Your task to perform on an android device: What's on my calendar tomorrow? Image 0: 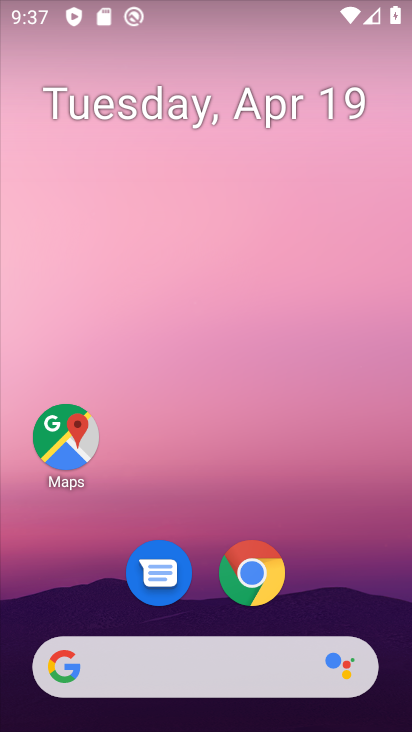
Step 0: drag from (226, 632) to (296, 236)
Your task to perform on an android device: What's on my calendar tomorrow? Image 1: 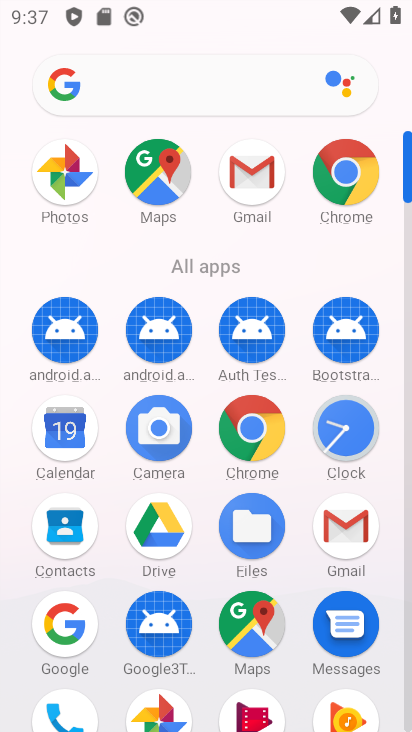
Step 1: click (74, 434)
Your task to perform on an android device: What's on my calendar tomorrow? Image 2: 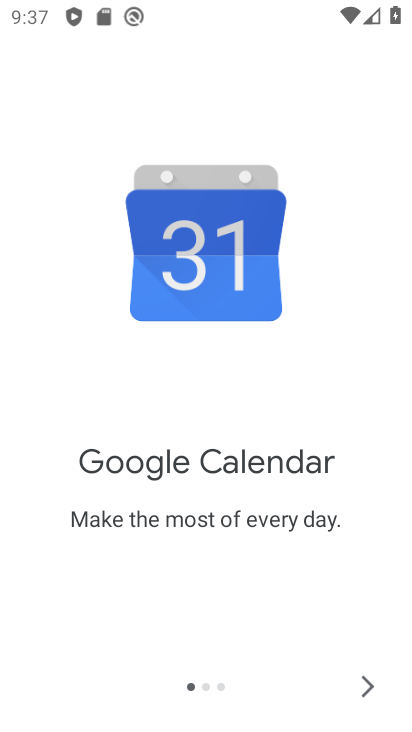
Step 2: click (367, 679)
Your task to perform on an android device: What's on my calendar tomorrow? Image 3: 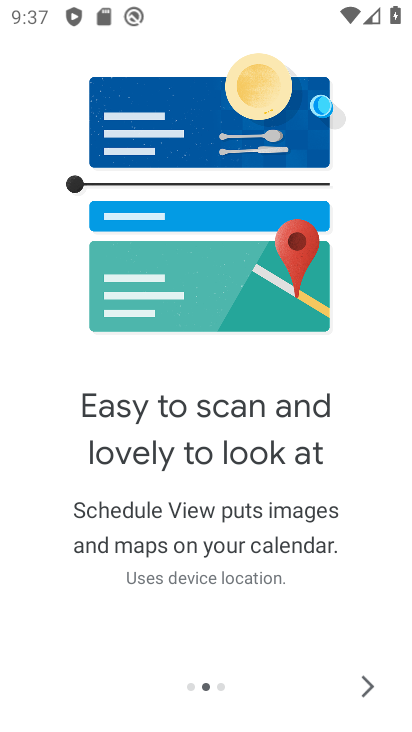
Step 3: click (367, 679)
Your task to perform on an android device: What's on my calendar tomorrow? Image 4: 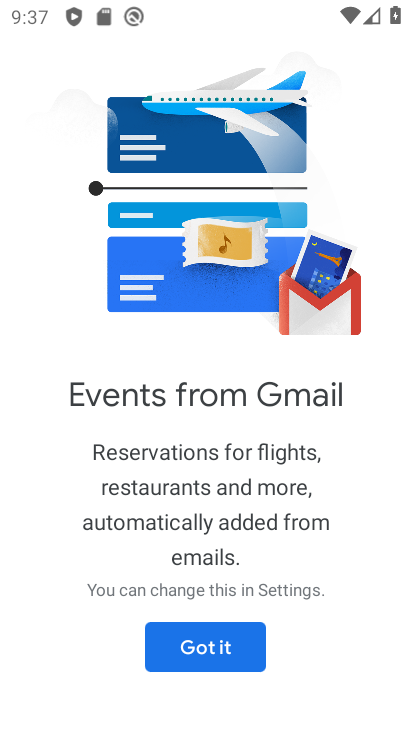
Step 4: click (235, 655)
Your task to perform on an android device: What's on my calendar tomorrow? Image 5: 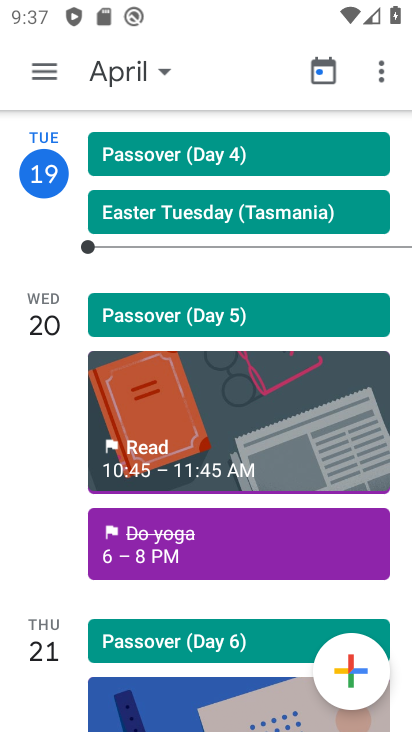
Step 5: click (130, 68)
Your task to perform on an android device: What's on my calendar tomorrow? Image 6: 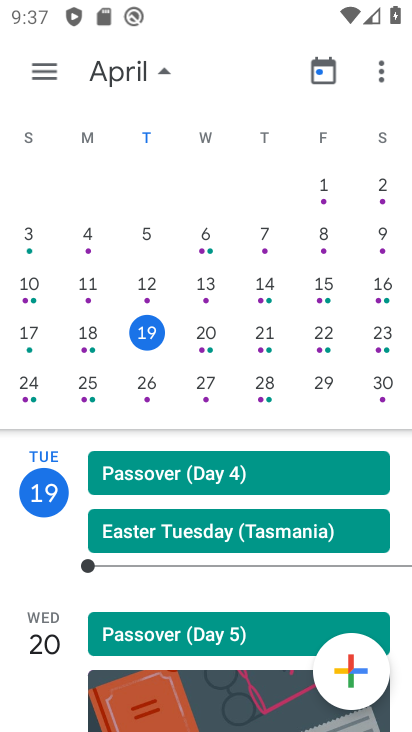
Step 6: click (205, 332)
Your task to perform on an android device: What's on my calendar tomorrow? Image 7: 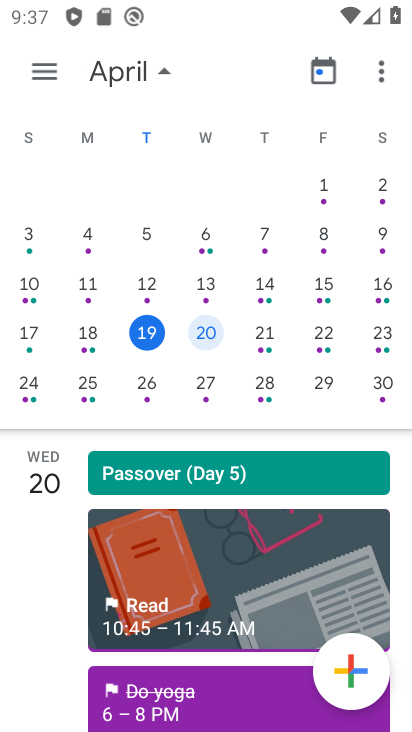
Step 7: task complete